Your task to perform on an android device: Go to battery settings Image 0: 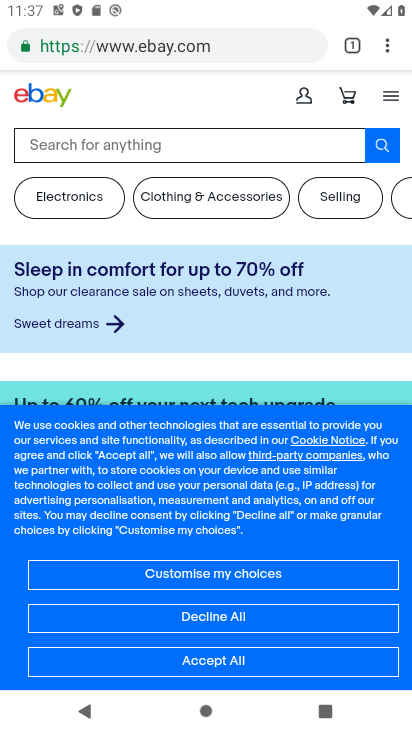
Step 0: press back button
Your task to perform on an android device: Go to battery settings Image 1: 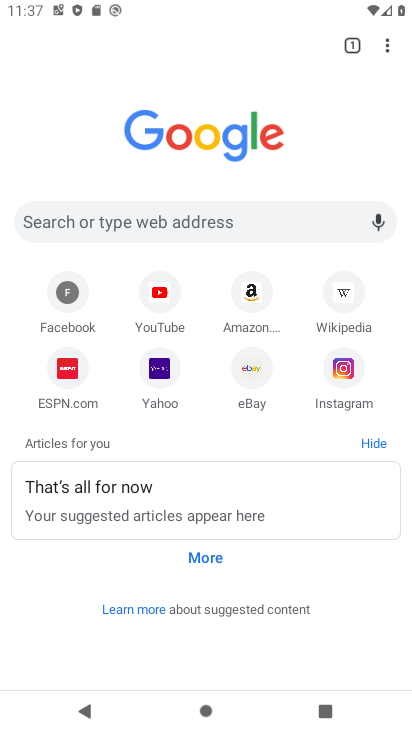
Step 1: press back button
Your task to perform on an android device: Go to battery settings Image 2: 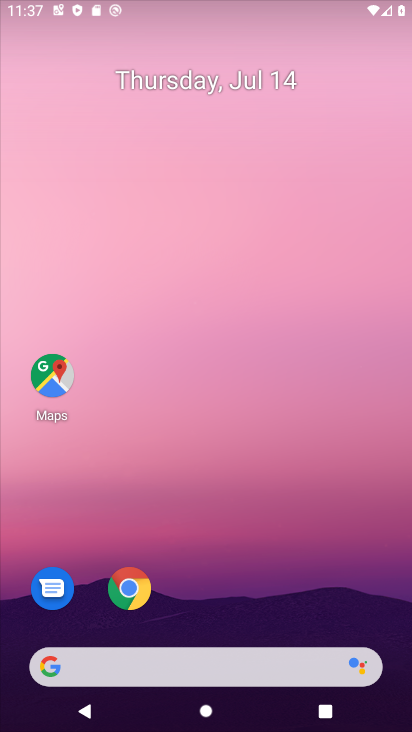
Step 2: drag from (212, 574) to (291, 23)
Your task to perform on an android device: Go to battery settings Image 3: 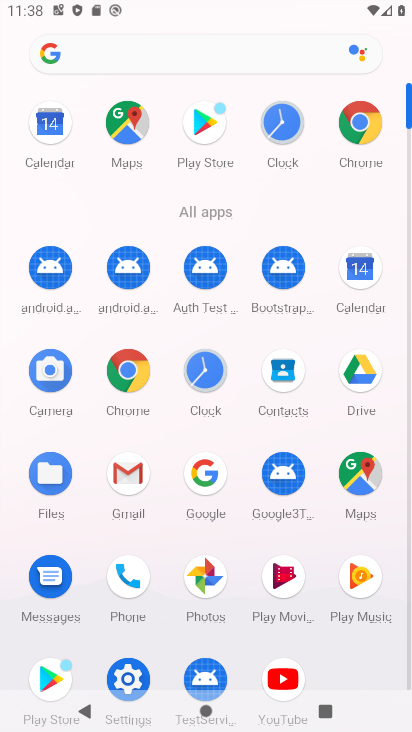
Step 3: click (142, 652)
Your task to perform on an android device: Go to battery settings Image 4: 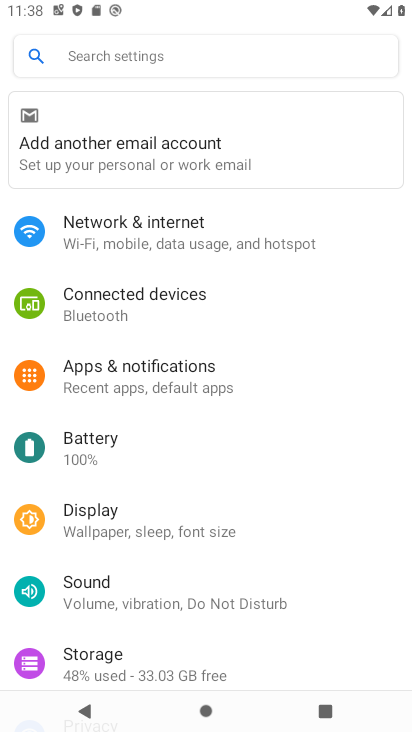
Step 4: click (121, 449)
Your task to perform on an android device: Go to battery settings Image 5: 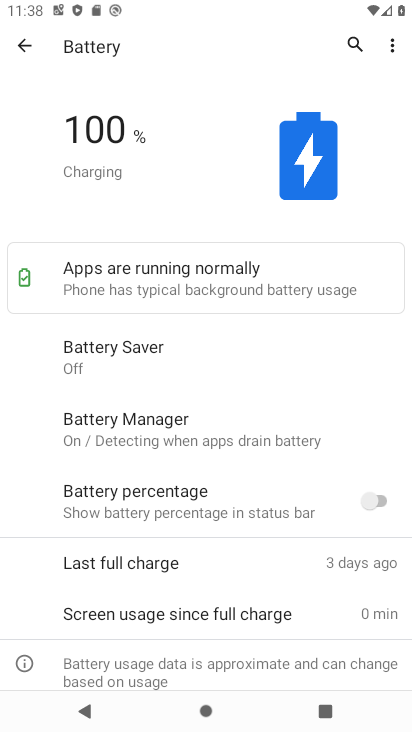
Step 5: task complete